Your task to perform on an android device: Search for seafood restaurants on Google Maps Image 0: 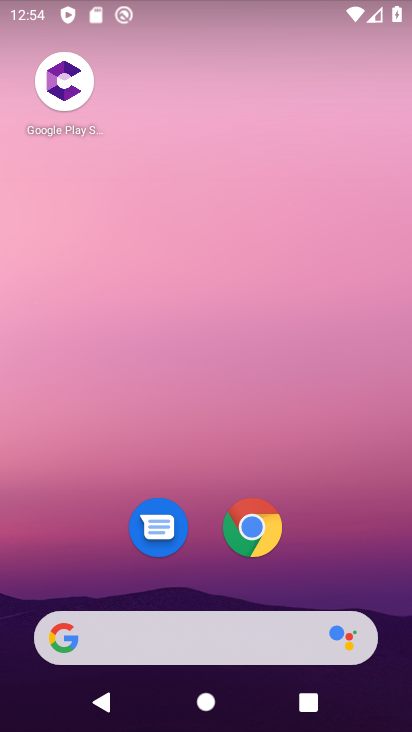
Step 0: drag from (201, 592) to (284, 1)
Your task to perform on an android device: Search for seafood restaurants on Google Maps Image 1: 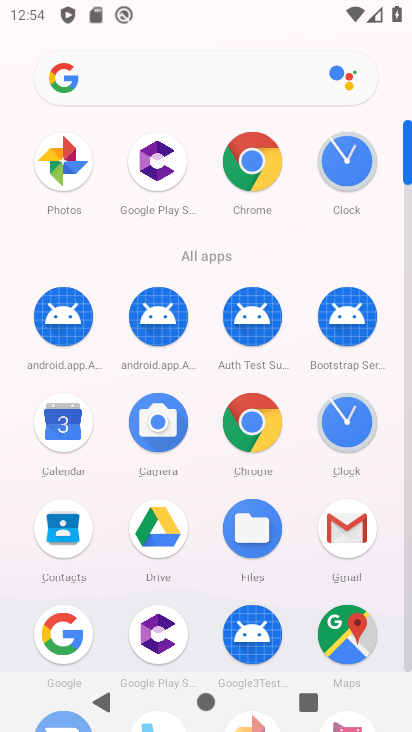
Step 1: click (356, 627)
Your task to perform on an android device: Search for seafood restaurants on Google Maps Image 2: 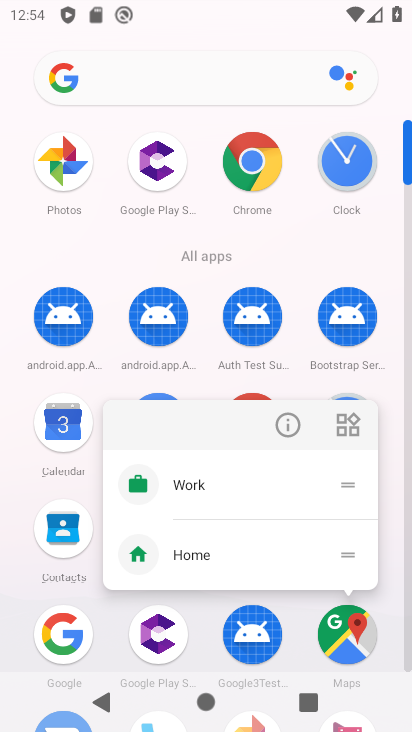
Step 2: click (342, 642)
Your task to perform on an android device: Search for seafood restaurants on Google Maps Image 3: 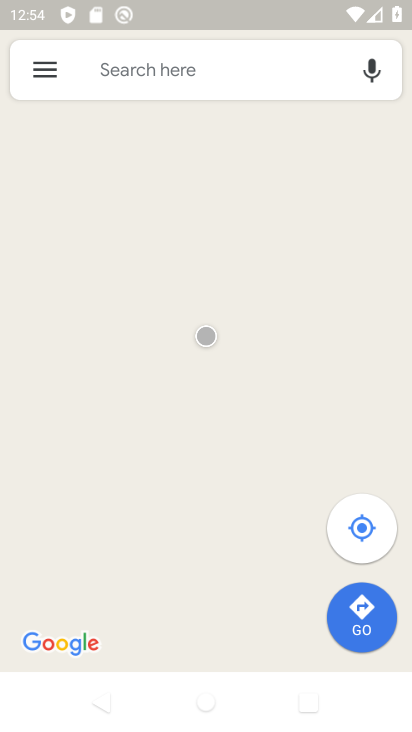
Step 3: click (133, 67)
Your task to perform on an android device: Search for seafood restaurants on Google Maps Image 4: 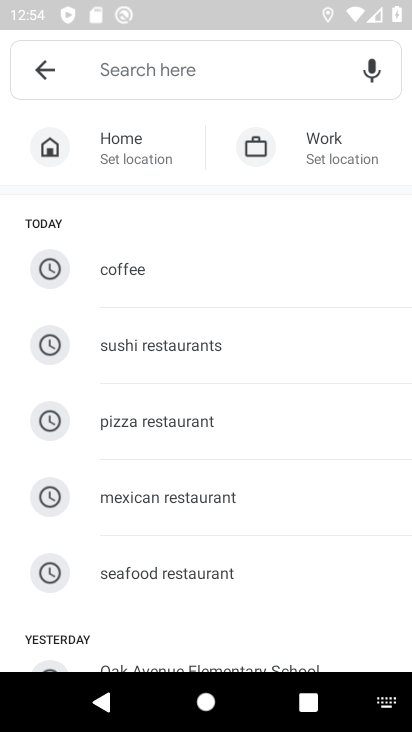
Step 4: type "seafood restaurants"
Your task to perform on an android device: Search for seafood restaurants on Google Maps Image 5: 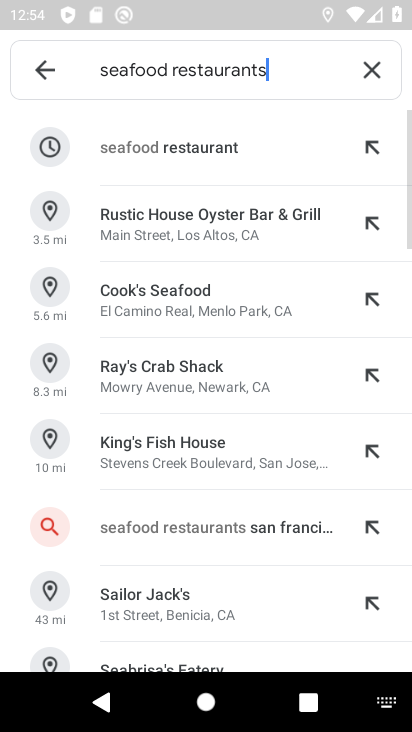
Step 5: click (199, 156)
Your task to perform on an android device: Search for seafood restaurants on Google Maps Image 6: 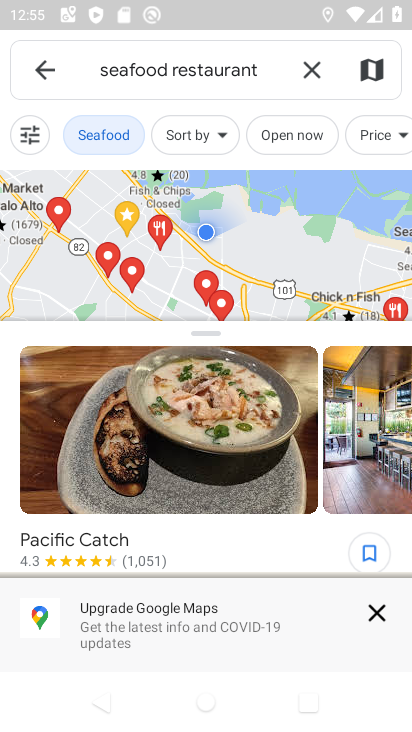
Step 6: task complete